Your task to perform on an android device: search for starred emails in the gmail app Image 0: 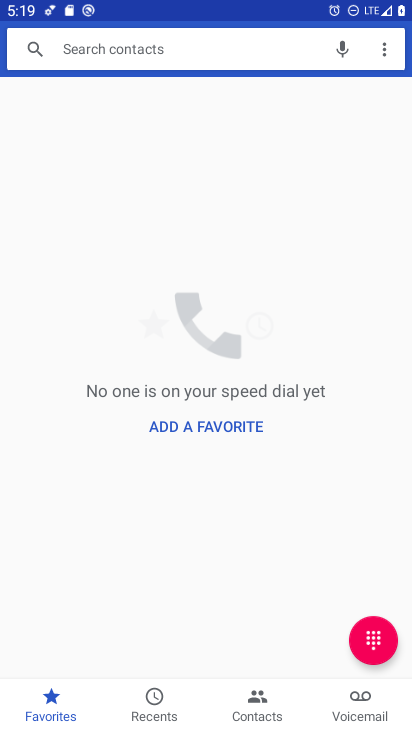
Step 0: press home button
Your task to perform on an android device: search for starred emails in the gmail app Image 1: 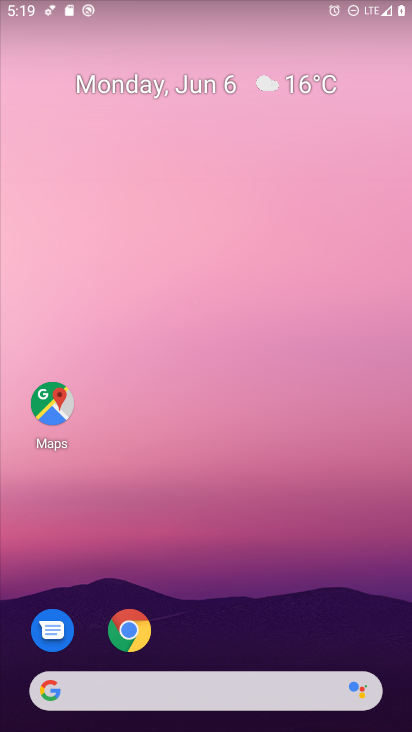
Step 1: drag from (288, 564) to (155, 15)
Your task to perform on an android device: search for starred emails in the gmail app Image 2: 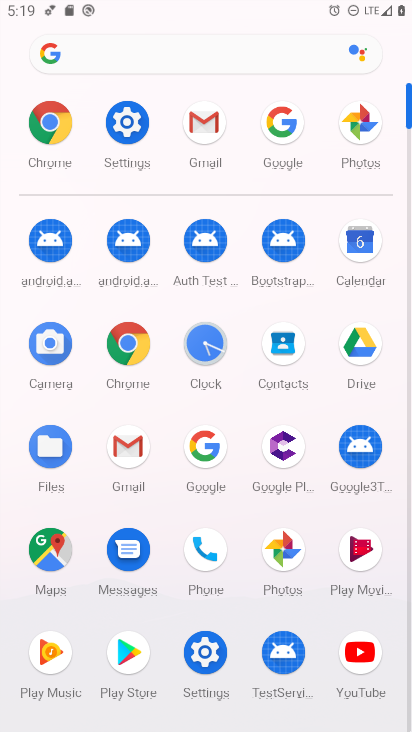
Step 2: click (212, 132)
Your task to perform on an android device: search for starred emails in the gmail app Image 3: 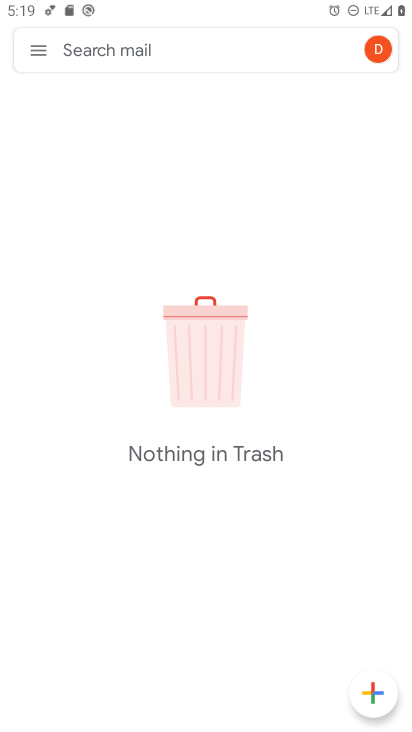
Step 3: press home button
Your task to perform on an android device: search for starred emails in the gmail app Image 4: 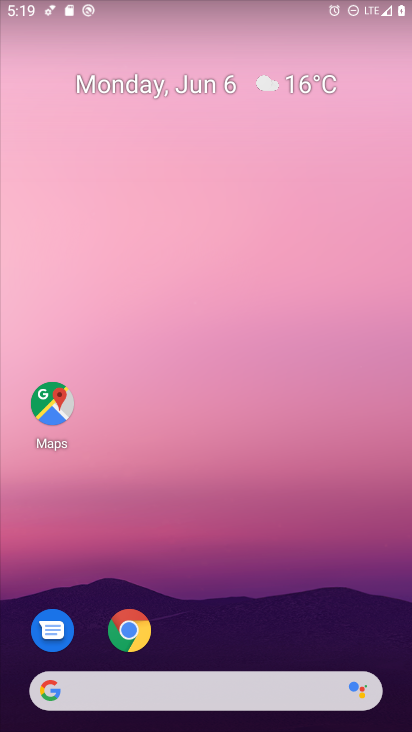
Step 4: drag from (288, 500) to (72, 38)
Your task to perform on an android device: search for starred emails in the gmail app Image 5: 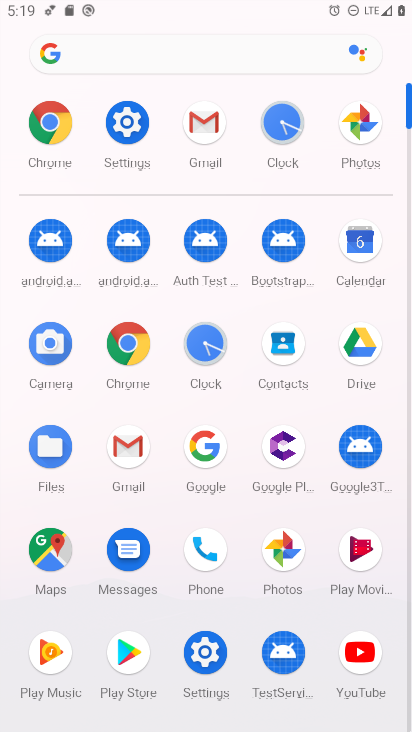
Step 5: click (123, 449)
Your task to perform on an android device: search for starred emails in the gmail app Image 6: 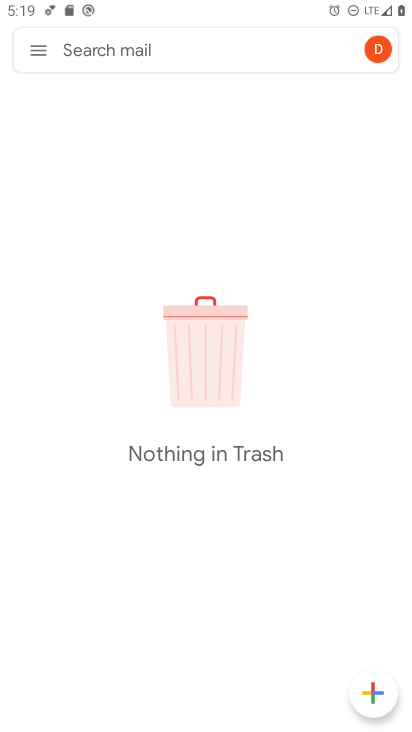
Step 6: click (41, 53)
Your task to perform on an android device: search for starred emails in the gmail app Image 7: 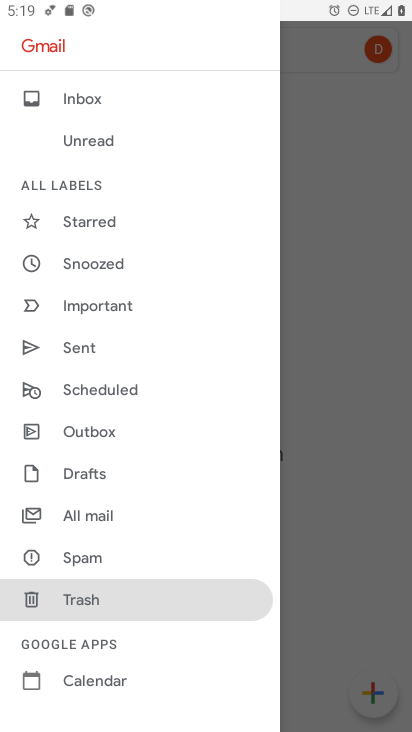
Step 7: drag from (149, 152) to (164, 409)
Your task to perform on an android device: search for starred emails in the gmail app Image 8: 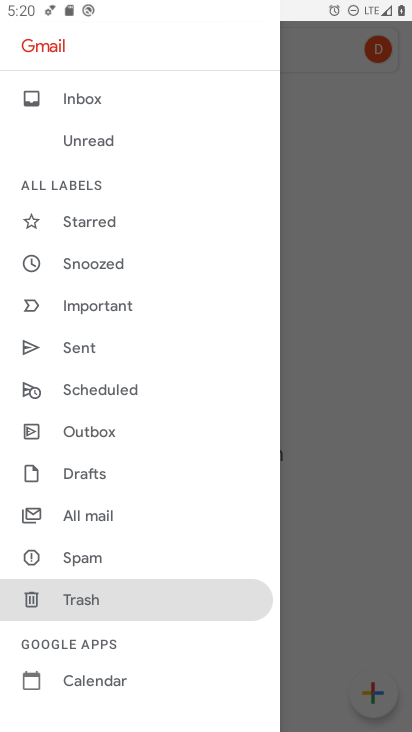
Step 8: click (135, 213)
Your task to perform on an android device: search for starred emails in the gmail app Image 9: 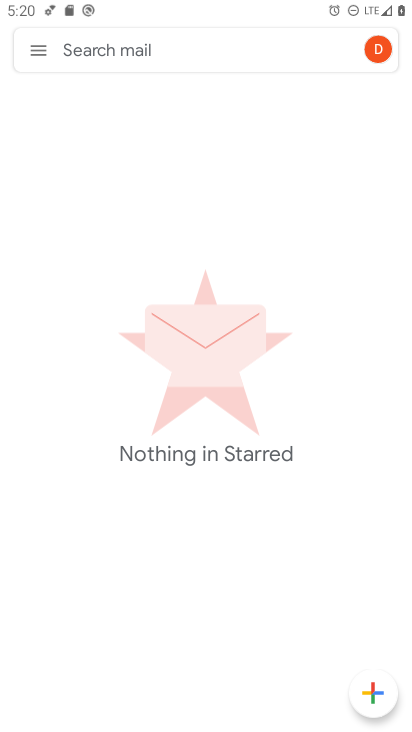
Step 9: task complete